Your task to perform on an android device: Play the last video I watched on Youtube Image 0: 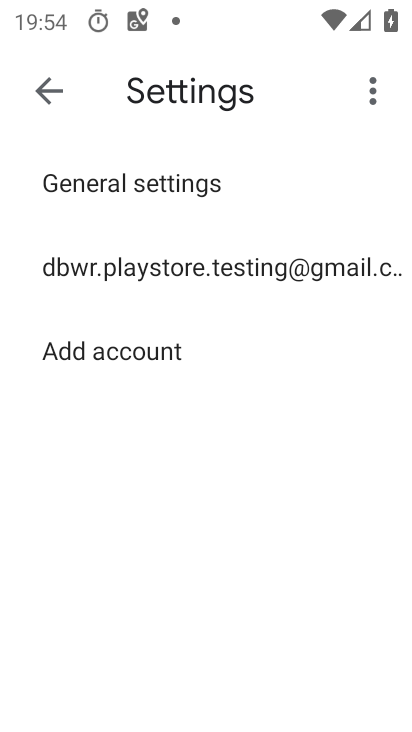
Step 0: press home button
Your task to perform on an android device: Play the last video I watched on Youtube Image 1: 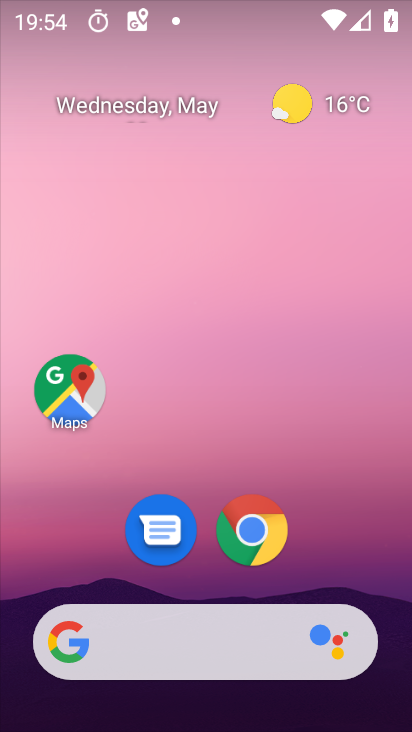
Step 1: drag from (129, 569) to (184, 175)
Your task to perform on an android device: Play the last video I watched on Youtube Image 2: 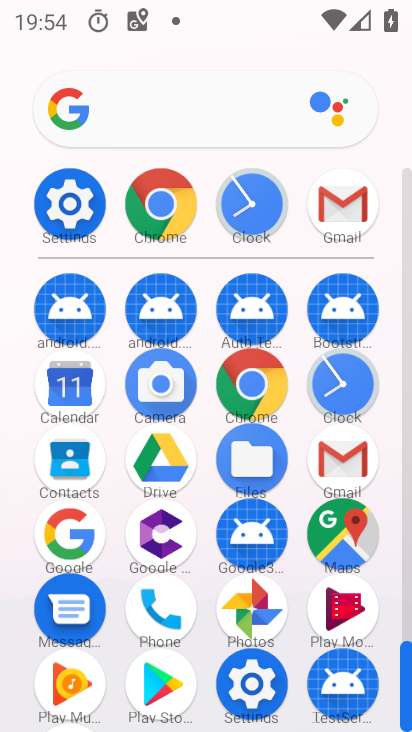
Step 2: drag from (115, 626) to (113, 355)
Your task to perform on an android device: Play the last video I watched on Youtube Image 3: 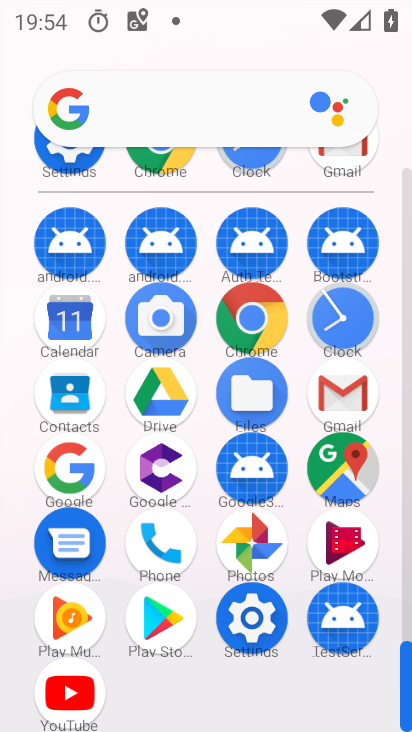
Step 3: click (69, 686)
Your task to perform on an android device: Play the last video I watched on Youtube Image 4: 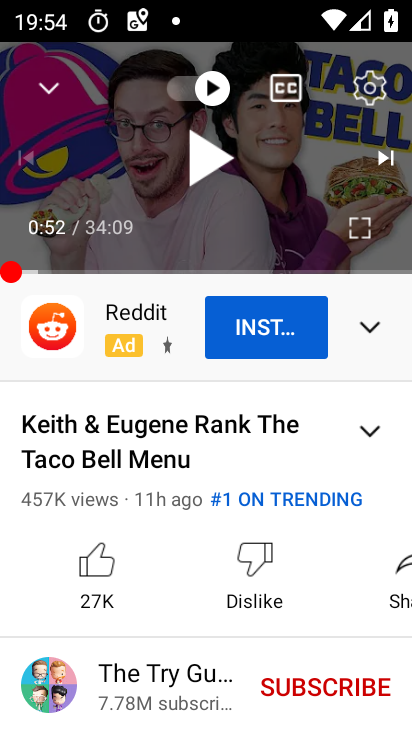
Step 4: click (197, 168)
Your task to perform on an android device: Play the last video I watched on Youtube Image 5: 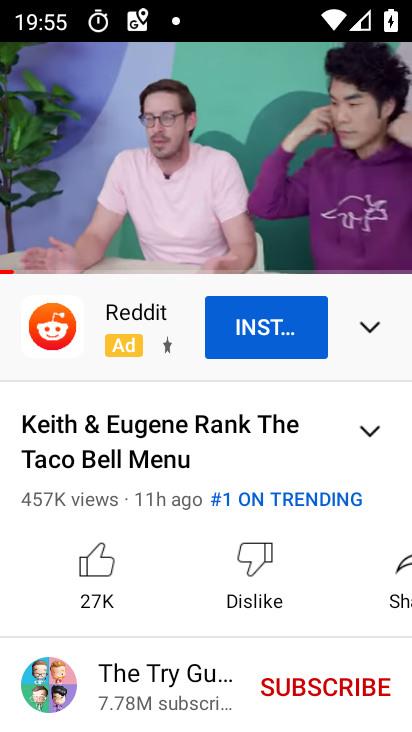
Step 5: task complete